Your task to perform on an android device: Search for vegetarian restaurants on Maps Image 0: 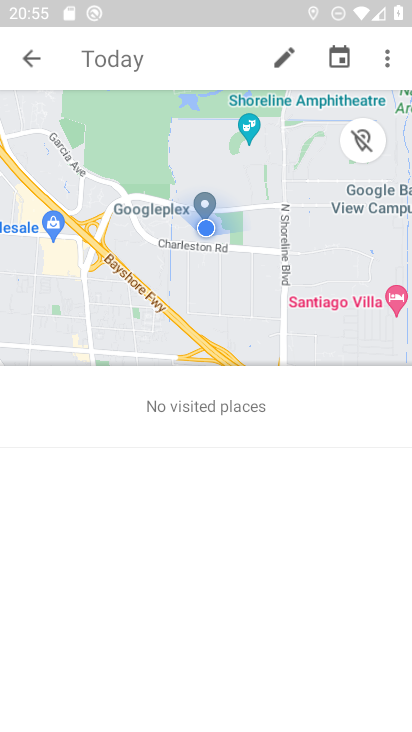
Step 0: press home button
Your task to perform on an android device: Search for vegetarian restaurants on Maps Image 1: 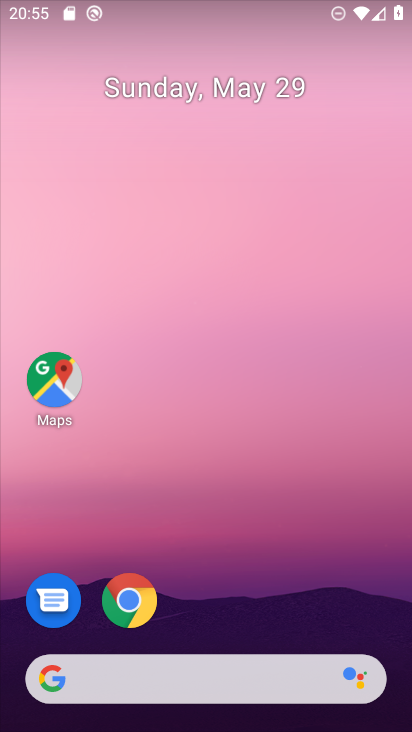
Step 1: drag from (301, 557) to (293, 154)
Your task to perform on an android device: Search for vegetarian restaurants on Maps Image 2: 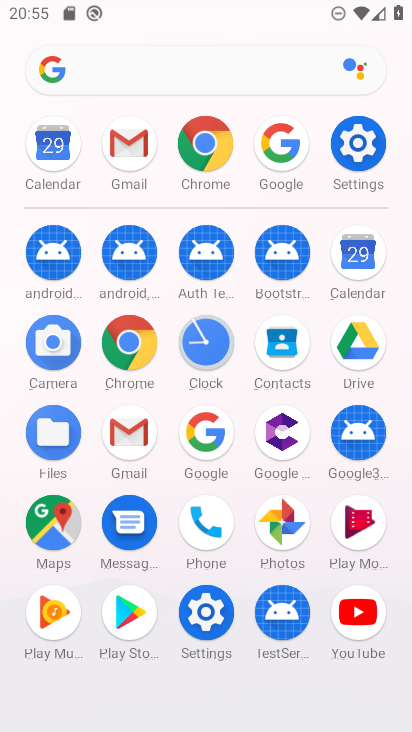
Step 2: click (51, 533)
Your task to perform on an android device: Search for vegetarian restaurants on Maps Image 3: 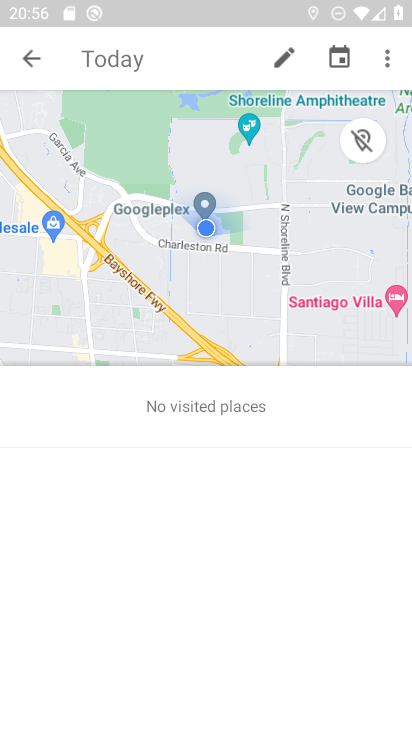
Step 3: click (40, 53)
Your task to perform on an android device: Search for vegetarian restaurants on Maps Image 4: 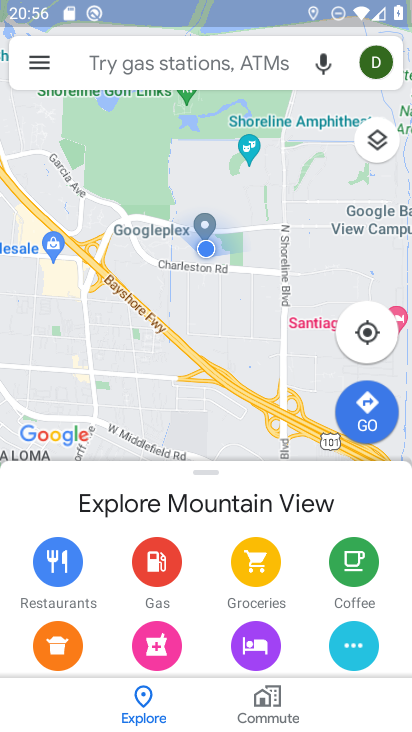
Step 4: click (159, 69)
Your task to perform on an android device: Search for vegetarian restaurants on Maps Image 5: 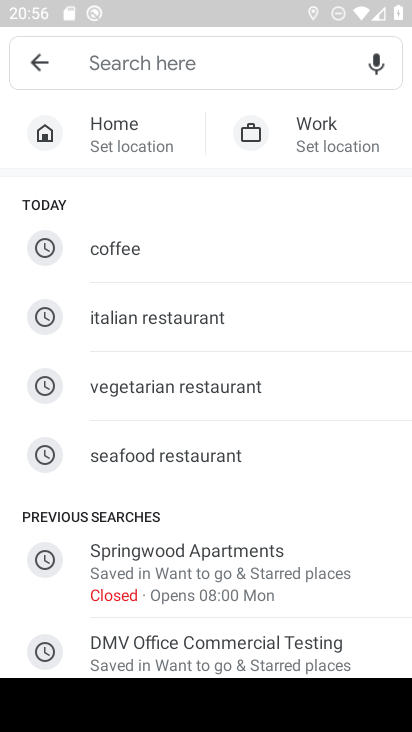
Step 5: type "vegetarian restaurants "
Your task to perform on an android device: Search for vegetarian restaurants on Maps Image 6: 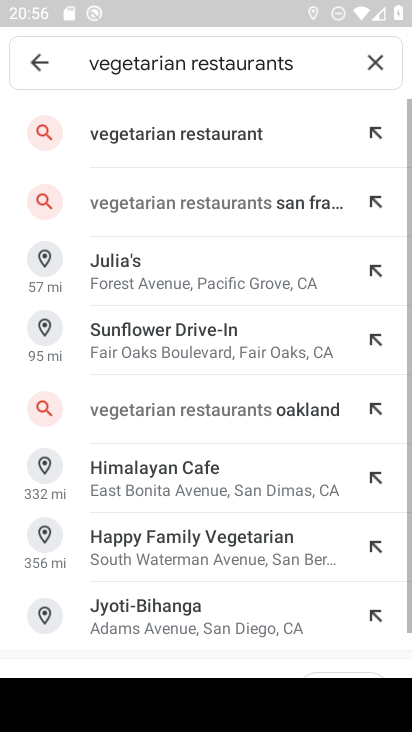
Step 6: click (201, 150)
Your task to perform on an android device: Search for vegetarian restaurants on Maps Image 7: 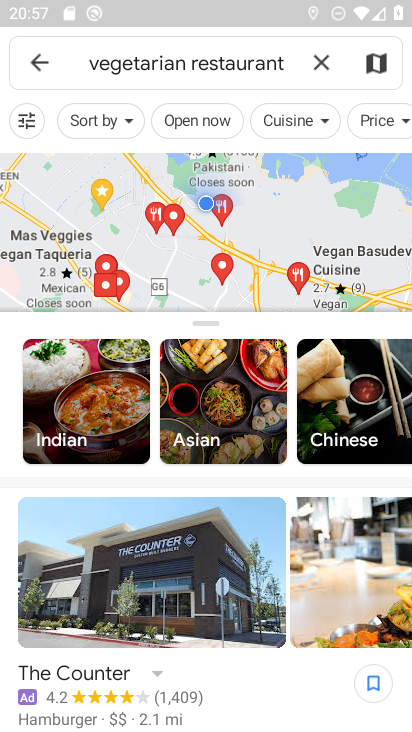
Step 7: task complete